Your task to perform on an android device: turn vacation reply on in the gmail app Image 0: 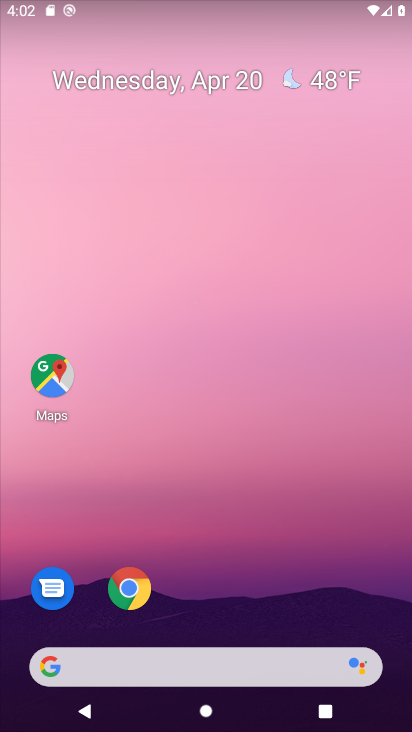
Step 0: drag from (318, 603) to (330, 197)
Your task to perform on an android device: turn vacation reply on in the gmail app Image 1: 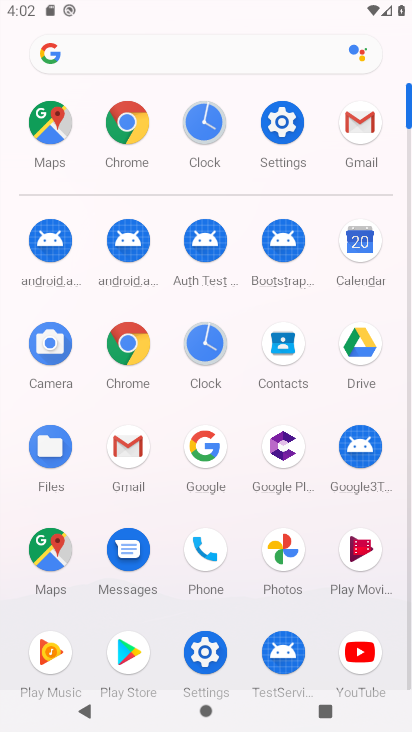
Step 1: click (121, 451)
Your task to perform on an android device: turn vacation reply on in the gmail app Image 2: 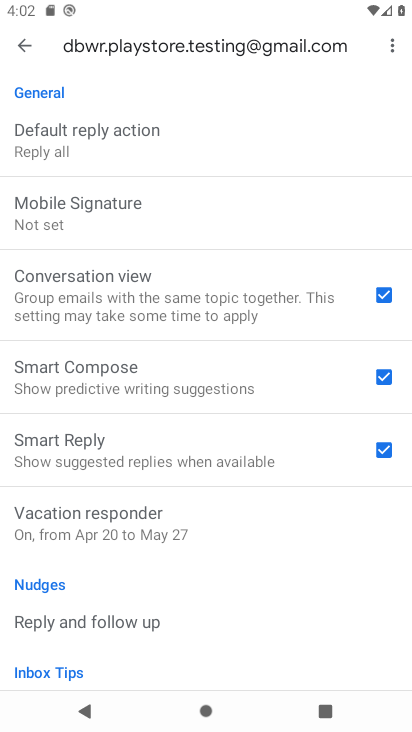
Step 2: drag from (328, 240) to (316, 459)
Your task to perform on an android device: turn vacation reply on in the gmail app Image 3: 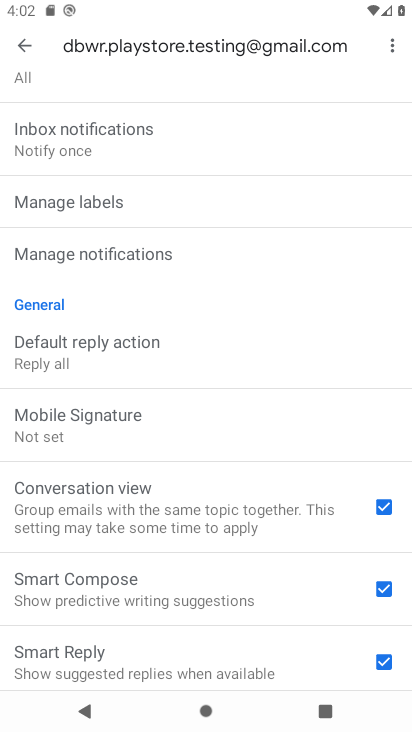
Step 3: drag from (334, 243) to (315, 412)
Your task to perform on an android device: turn vacation reply on in the gmail app Image 4: 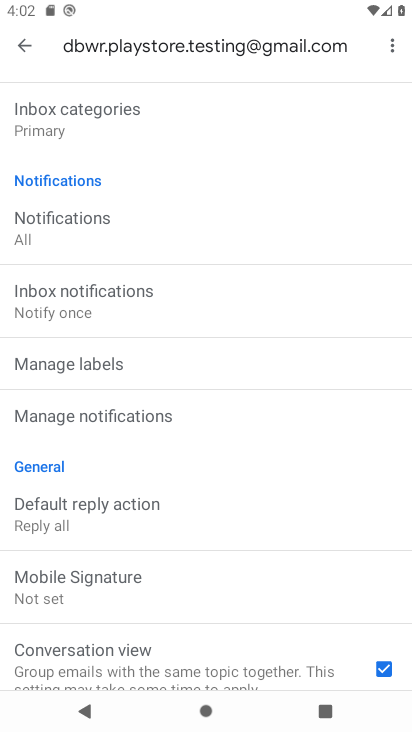
Step 4: drag from (337, 196) to (332, 400)
Your task to perform on an android device: turn vacation reply on in the gmail app Image 5: 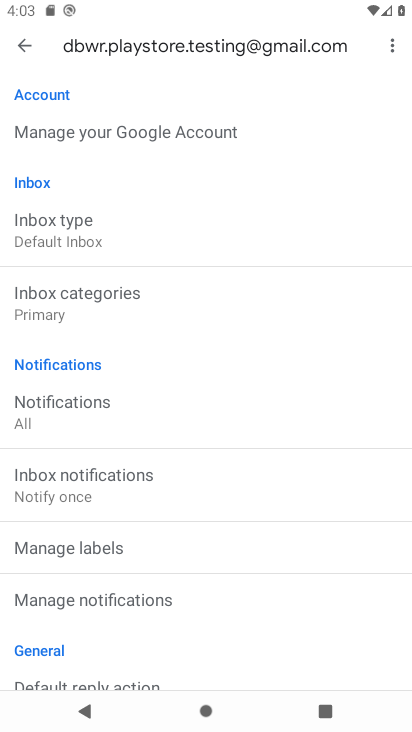
Step 5: drag from (336, 161) to (352, 442)
Your task to perform on an android device: turn vacation reply on in the gmail app Image 6: 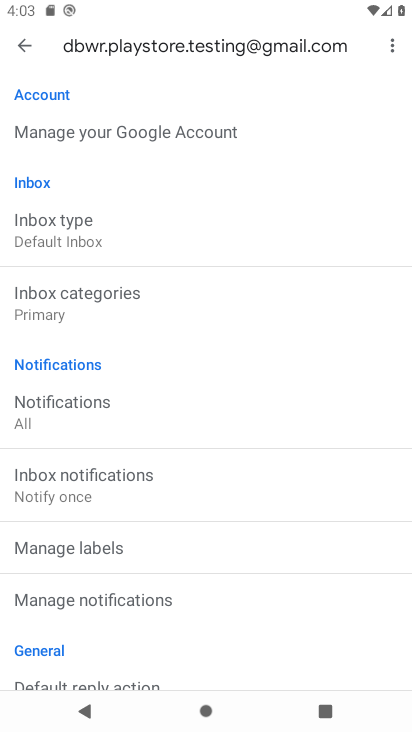
Step 6: drag from (343, 549) to (336, 315)
Your task to perform on an android device: turn vacation reply on in the gmail app Image 7: 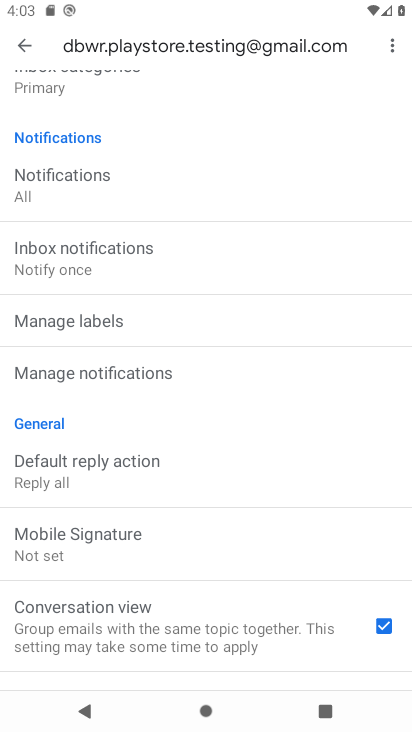
Step 7: drag from (317, 556) to (326, 326)
Your task to perform on an android device: turn vacation reply on in the gmail app Image 8: 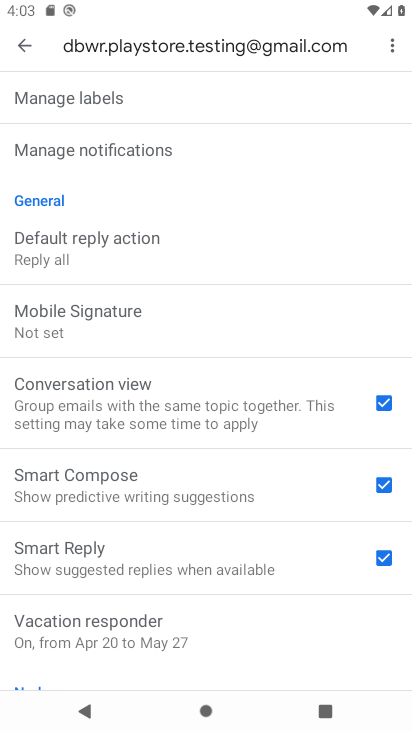
Step 8: drag from (306, 619) to (329, 399)
Your task to perform on an android device: turn vacation reply on in the gmail app Image 9: 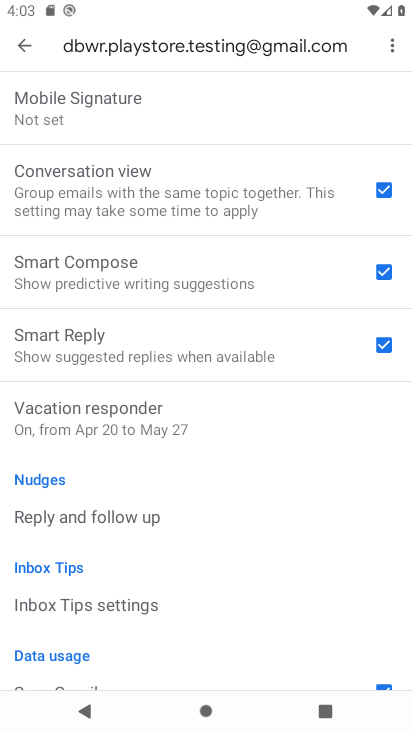
Step 9: drag from (284, 579) to (285, 465)
Your task to perform on an android device: turn vacation reply on in the gmail app Image 10: 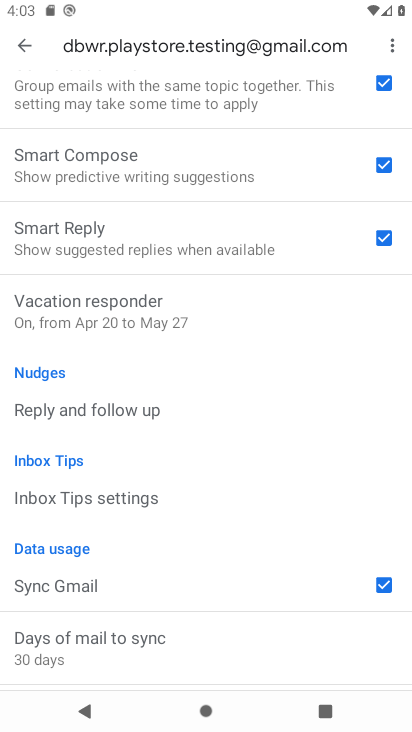
Step 10: click (146, 308)
Your task to perform on an android device: turn vacation reply on in the gmail app Image 11: 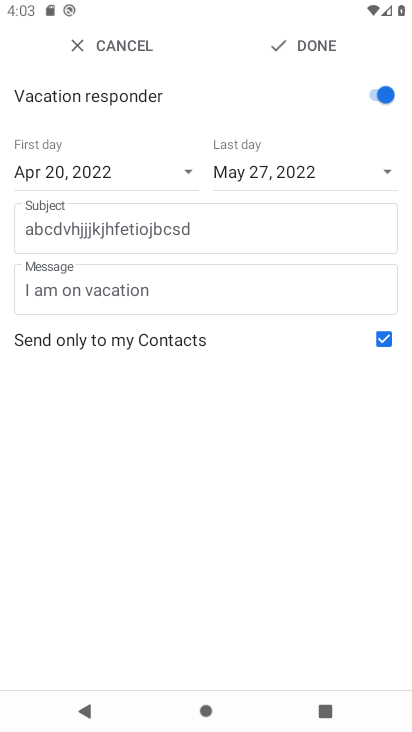
Step 11: task complete